Your task to perform on an android device: turn off translation in the chrome app Image 0: 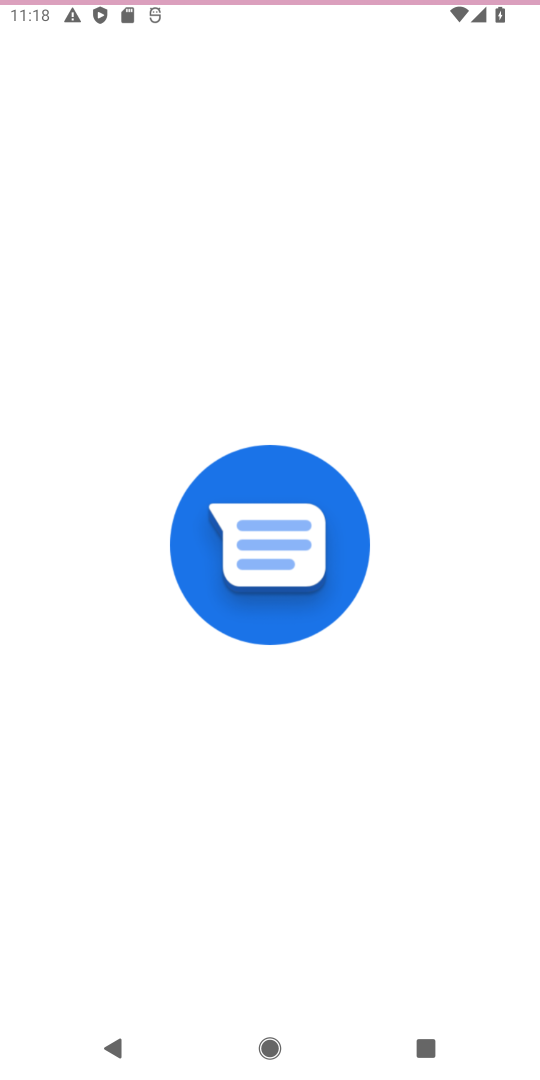
Step 0: press home button
Your task to perform on an android device: turn off translation in the chrome app Image 1: 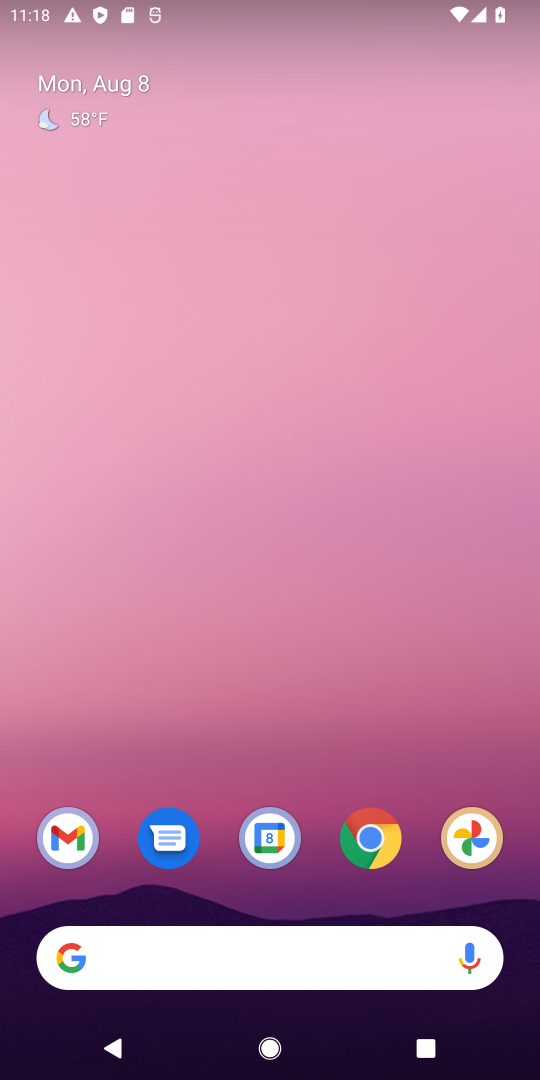
Step 1: click (382, 845)
Your task to perform on an android device: turn off translation in the chrome app Image 2: 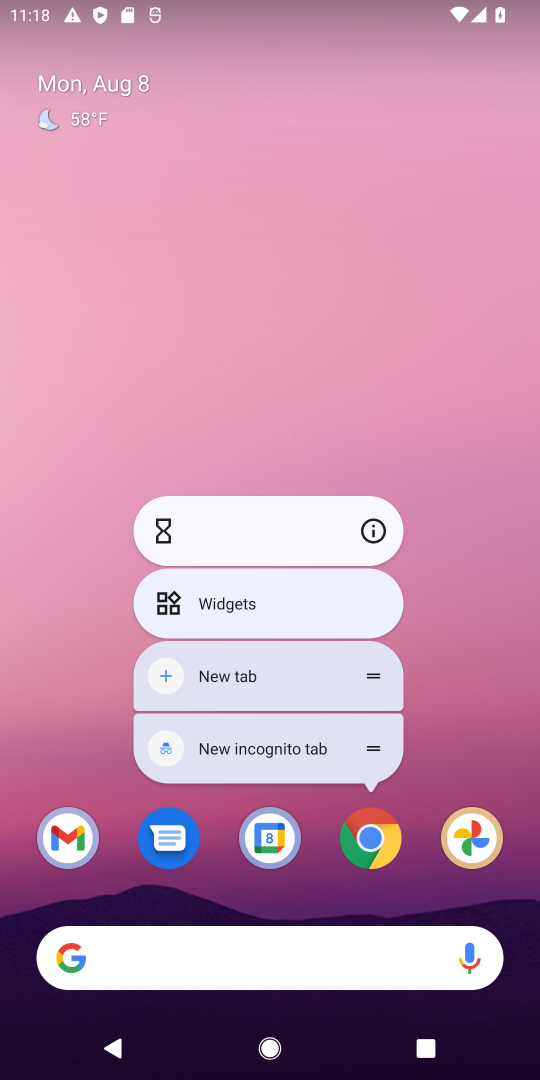
Step 2: click (382, 844)
Your task to perform on an android device: turn off translation in the chrome app Image 3: 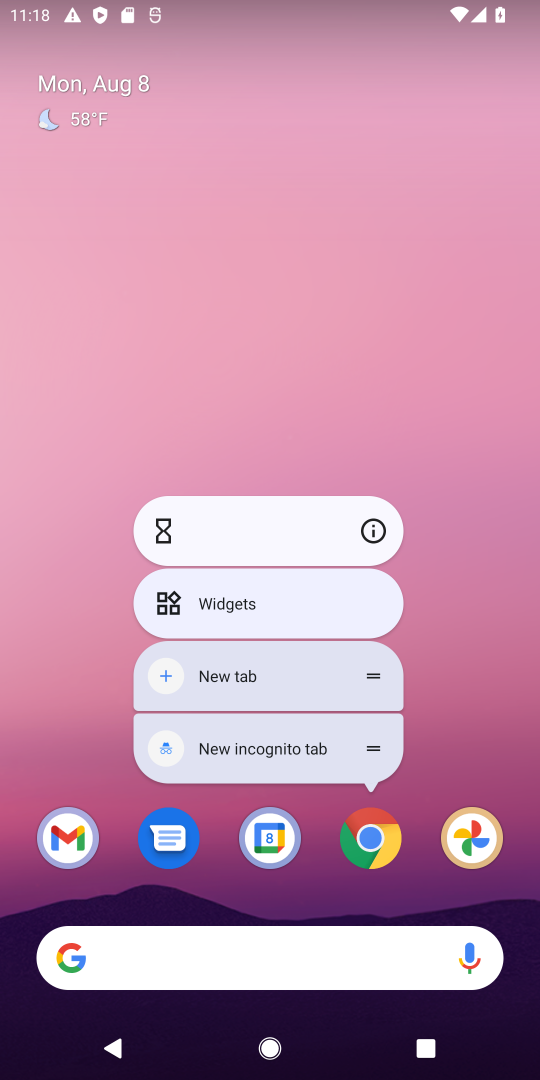
Step 3: click (382, 844)
Your task to perform on an android device: turn off translation in the chrome app Image 4: 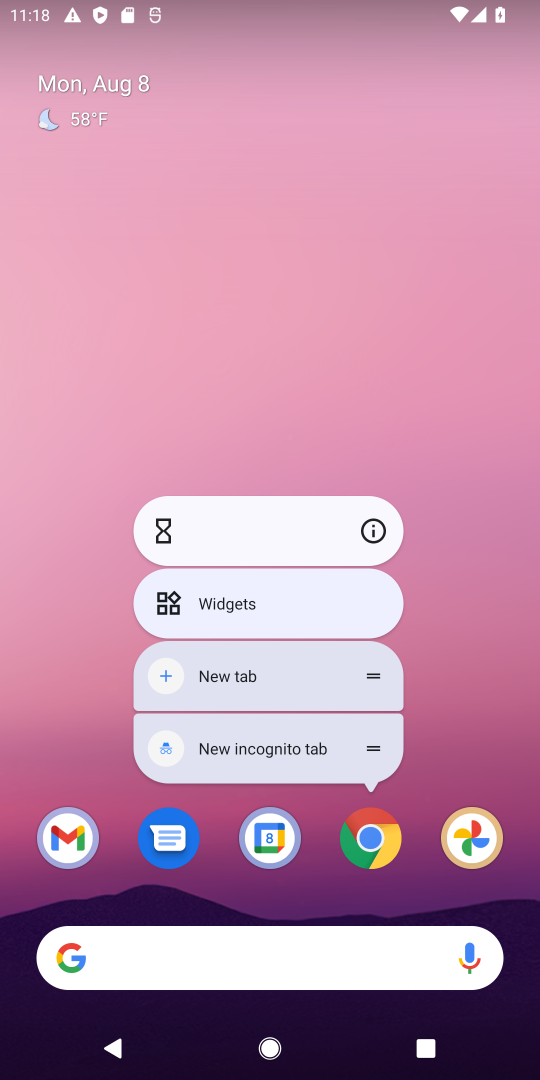
Step 4: click (419, 881)
Your task to perform on an android device: turn off translation in the chrome app Image 5: 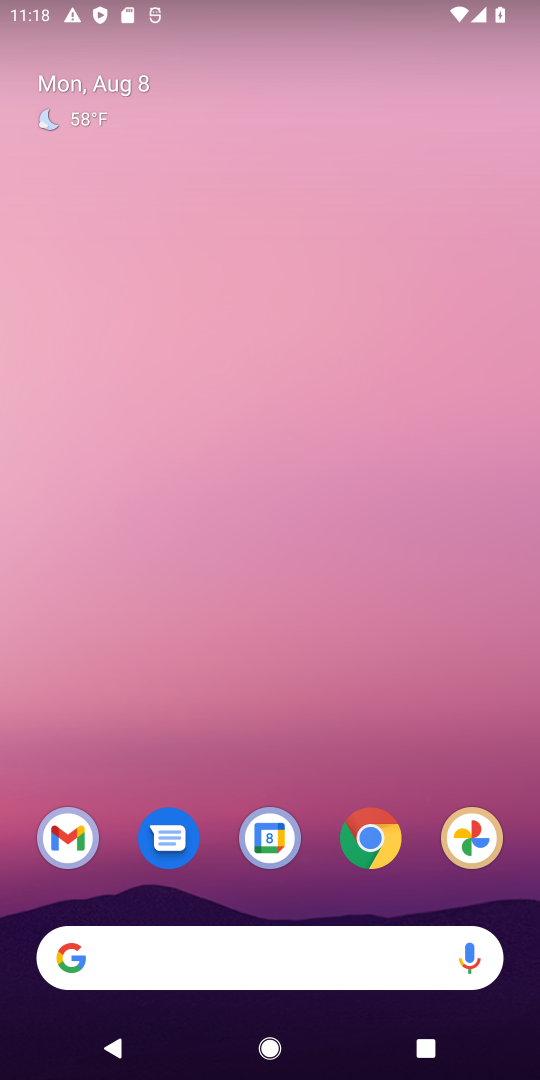
Step 5: drag from (322, 889) to (396, 295)
Your task to perform on an android device: turn off translation in the chrome app Image 6: 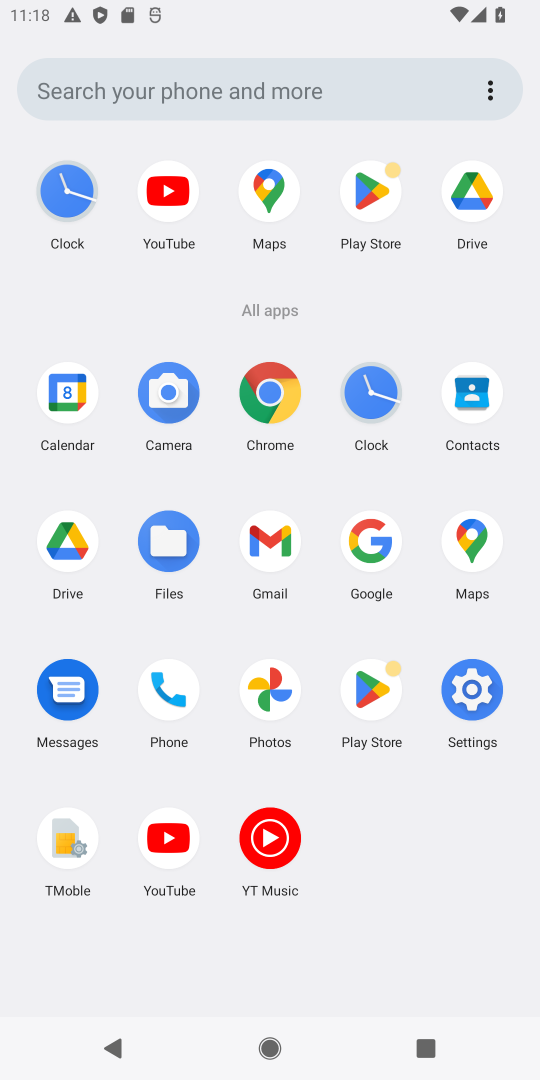
Step 6: click (289, 414)
Your task to perform on an android device: turn off translation in the chrome app Image 7: 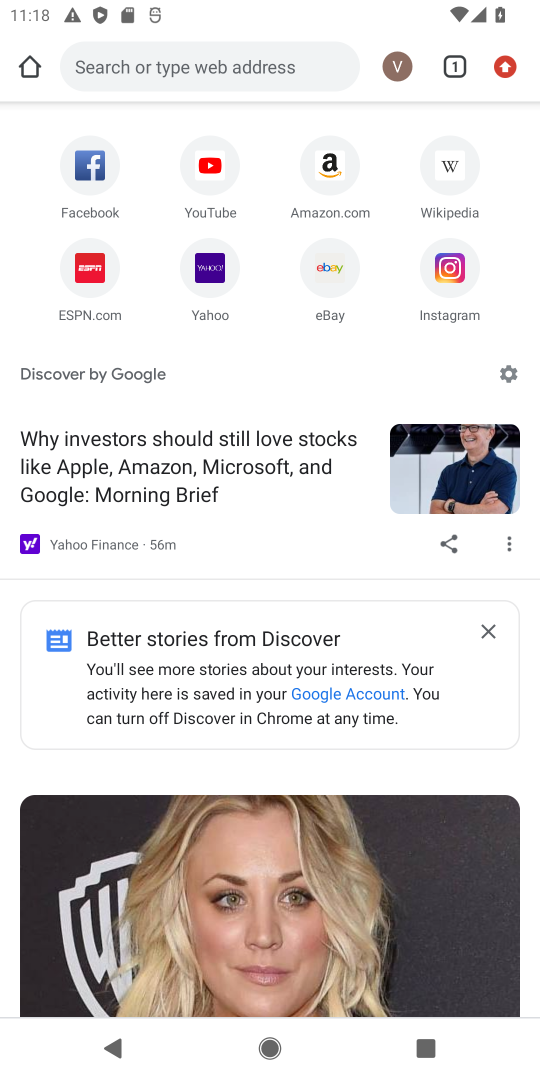
Step 7: drag from (512, 72) to (296, 680)
Your task to perform on an android device: turn off translation in the chrome app Image 8: 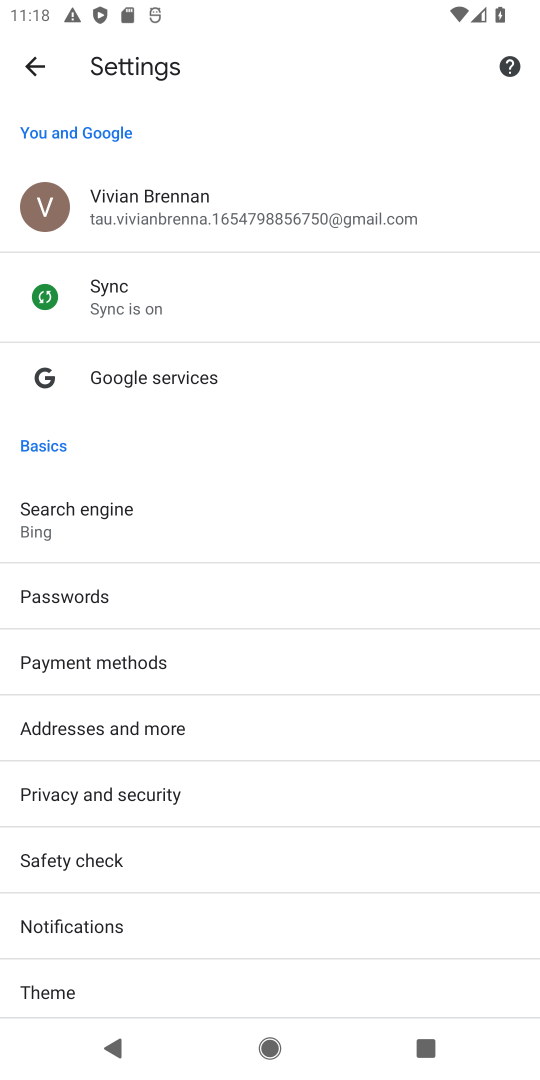
Step 8: drag from (244, 934) to (283, 487)
Your task to perform on an android device: turn off translation in the chrome app Image 9: 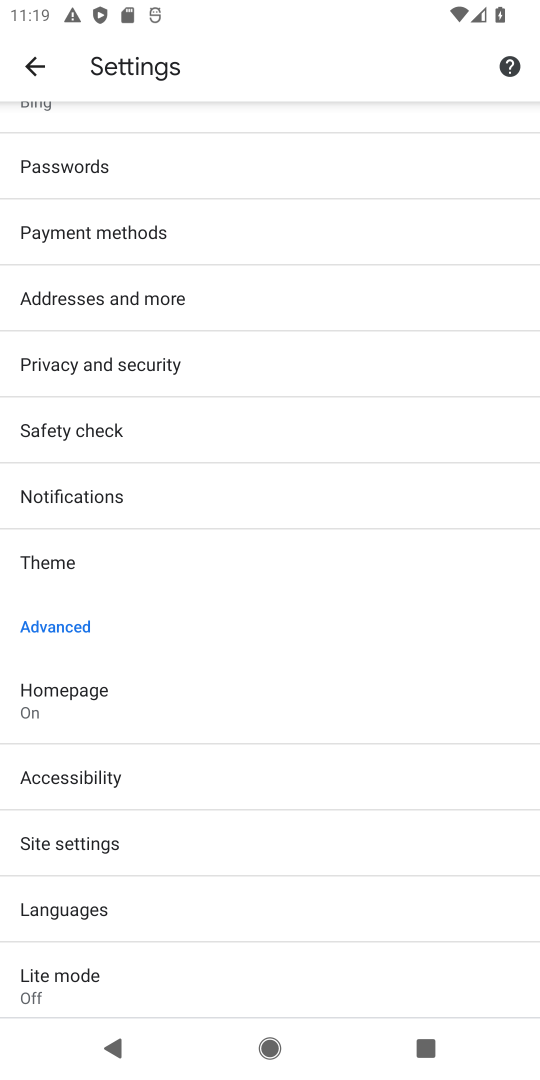
Step 9: click (54, 914)
Your task to perform on an android device: turn off translation in the chrome app Image 10: 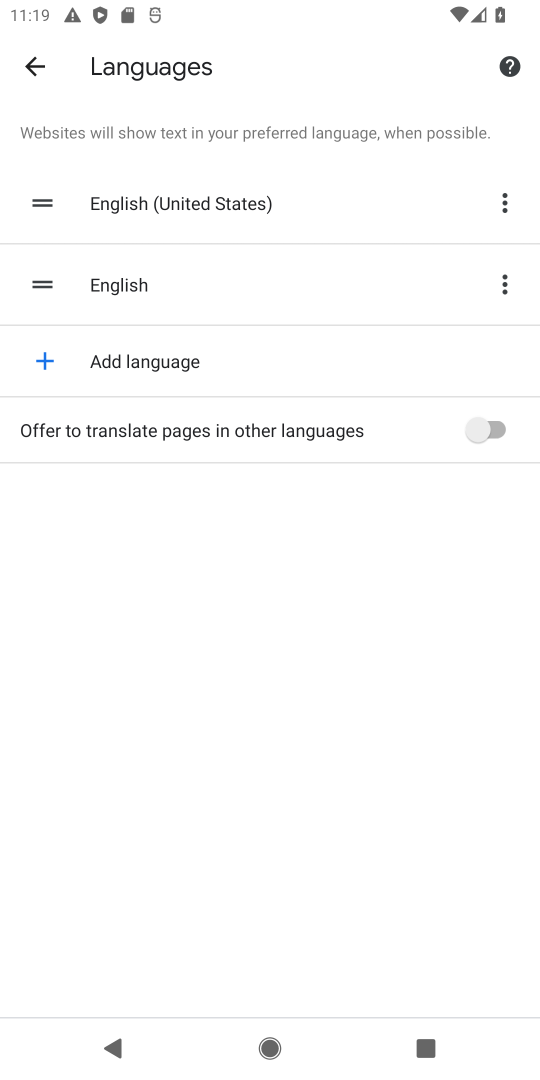
Step 10: task complete